Your task to perform on an android device: Open maps Image 0: 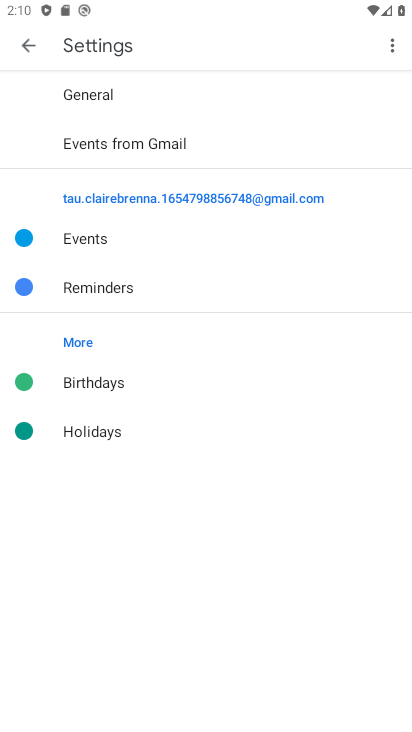
Step 0: press back button
Your task to perform on an android device: Open maps Image 1: 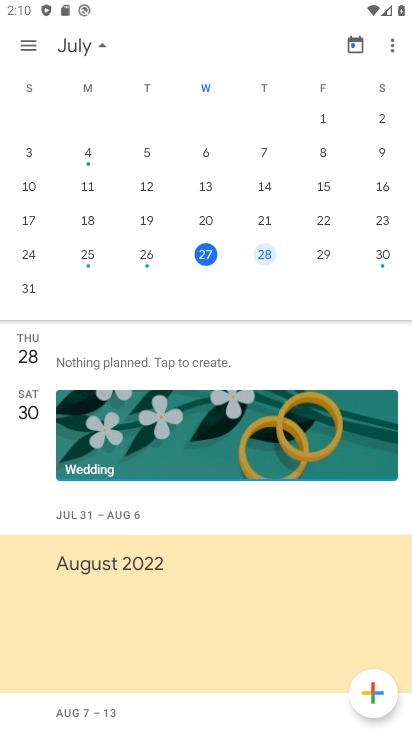
Step 1: press back button
Your task to perform on an android device: Open maps Image 2: 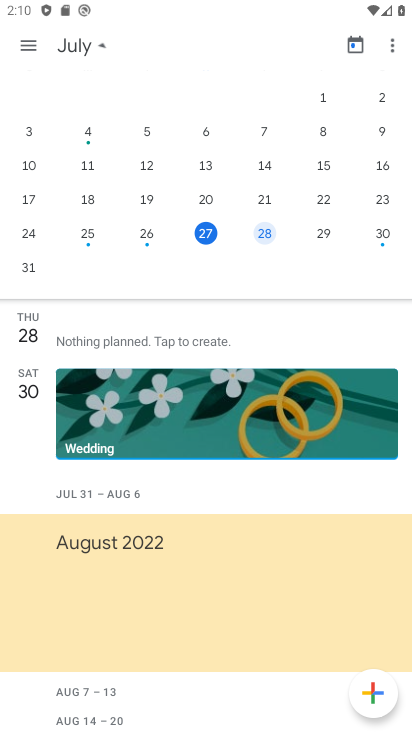
Step 2: press back button
Your task to perform on an android device: Open maps Image 3: 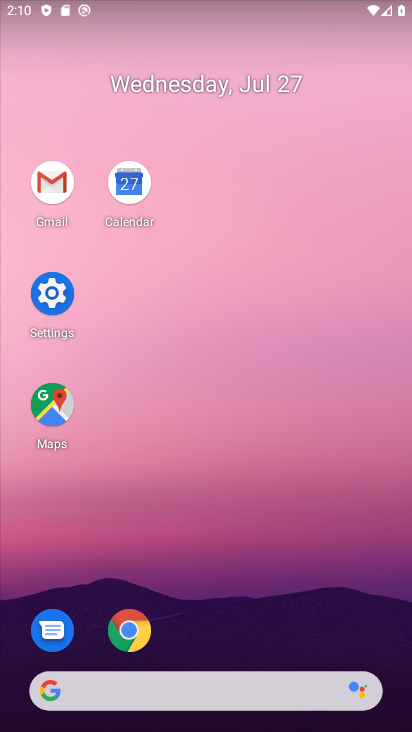
Step 3: click (59, 397)
Your task to perform on an android device: Open maps Image 4: 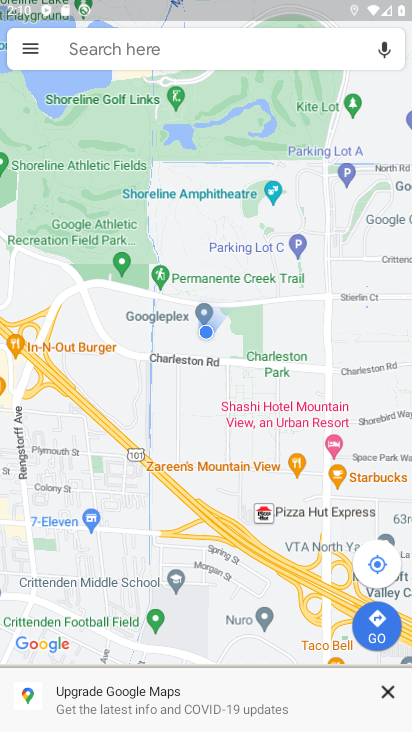
Step 4: task complete